Your task to perform on an android device: What is the news today? Image 0: 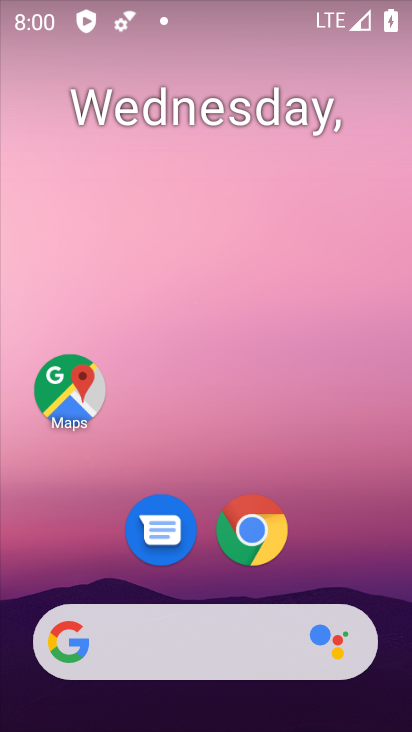
Step 0: drag from (331, 562) to (325, 192)
Your task to perform on an android device: What is the news today? Image 1: 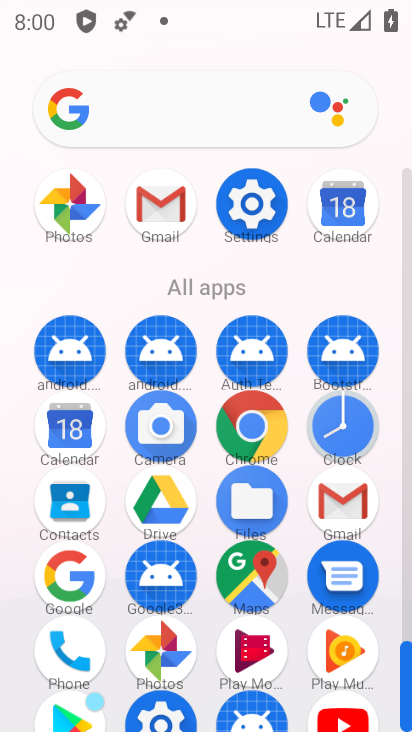
Step 1: drag from (299, 494) to (343, 235)
Your task to perform on an android device: What is the news today? Image 2: 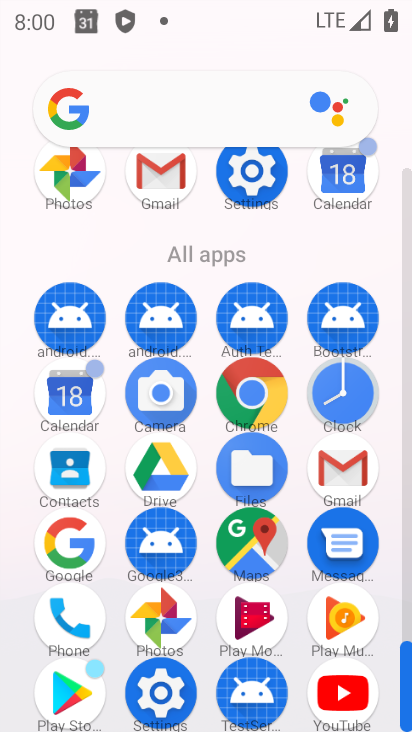
Step 2: drag from (237, 559) to (253, 213)
Your task to perform on an android device: What is the news today? Image 3: 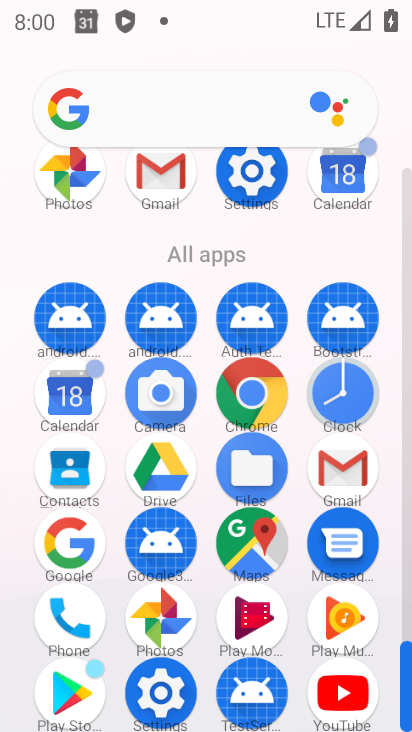
Step 3: click (80, 534)
Your task to perform on an android device: What is the news today? Image 4: 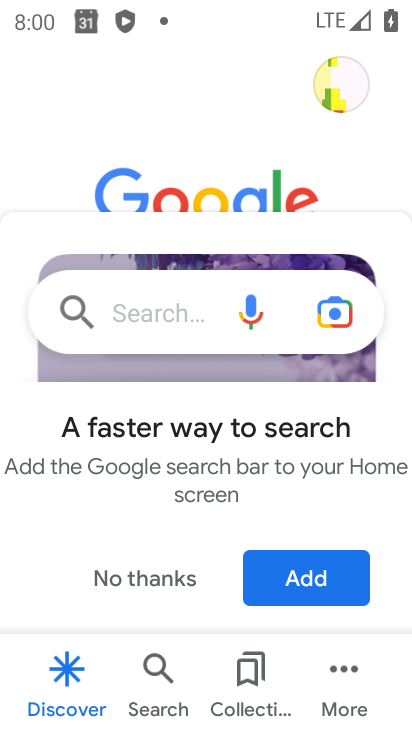
Step 4: click (154, 338)
Your task to perform on an android device: What is the news today? Image 5: 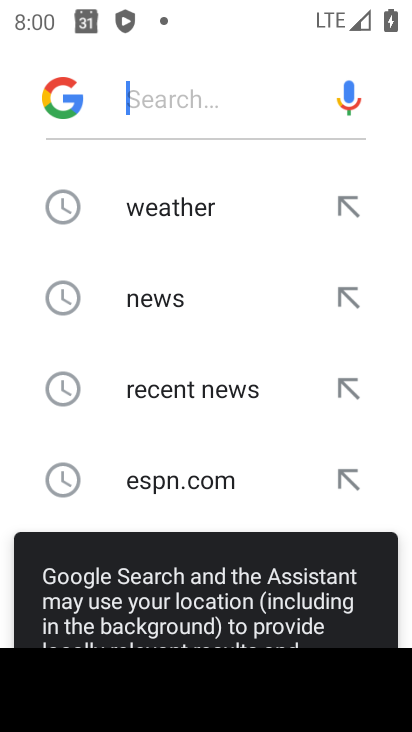
Step 5: click (190, 297)
Your task to perform on an android device: What is the news today? Image 6: 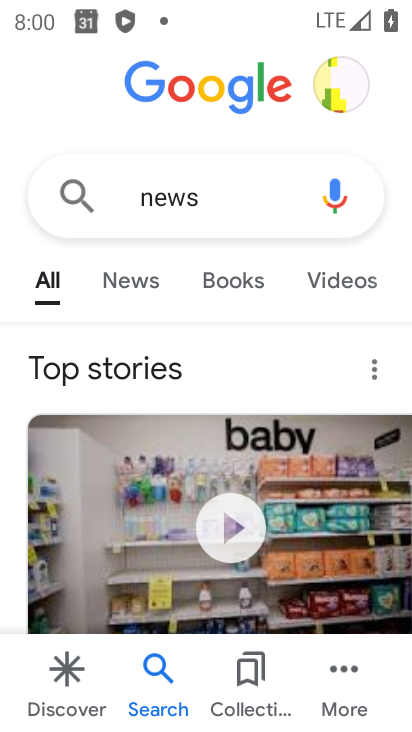
Step 6: task complete